Your task to perform on an android device: Open network settings Image 0: 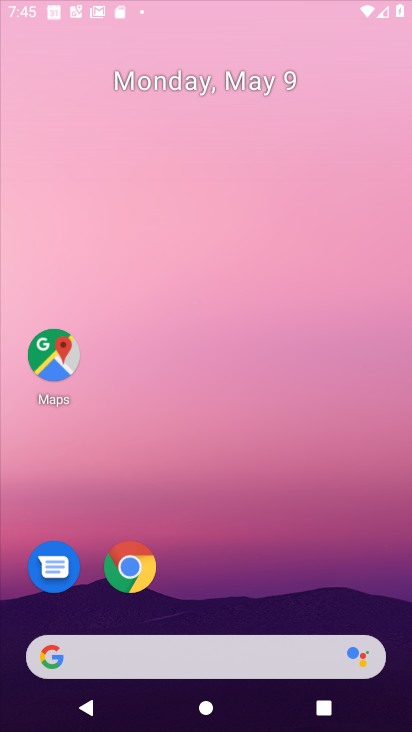
Step 0: click (313, 360)
Your task to perform on an android device: Open network settings Image 1: 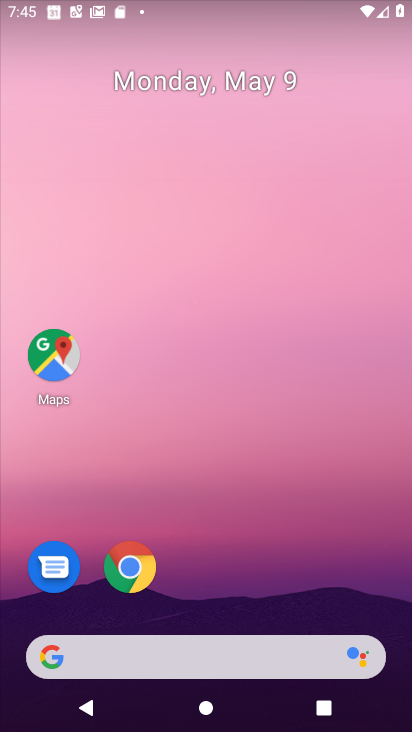
Step 1: drag from (222, 559) to (365, 128)
Your task to perform on an android device: Open network settings Image 2: 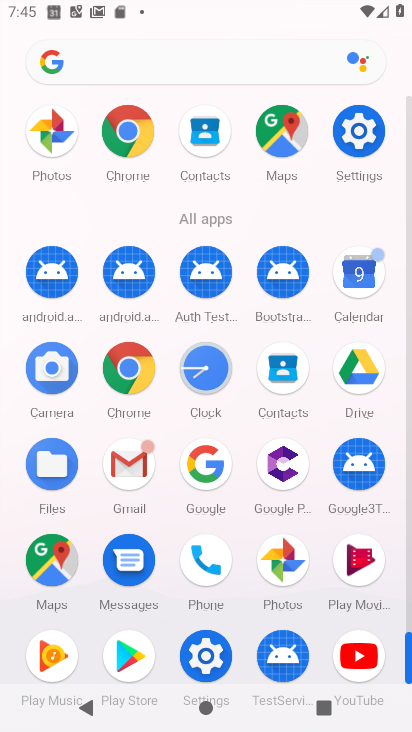
Step 2: click (207, 662)
Your task to perform on an android device: Open network settings Image 3: 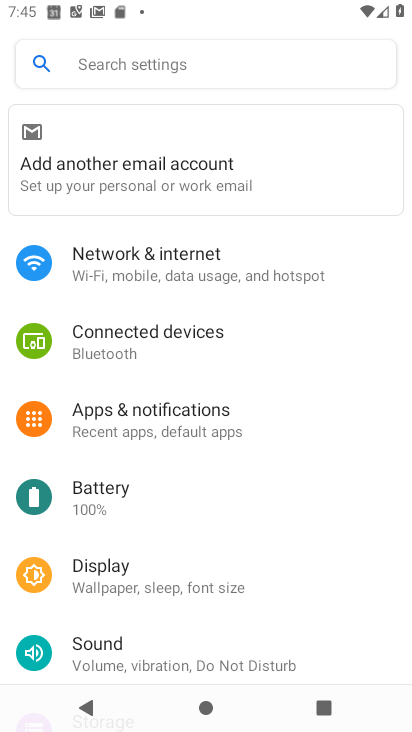
Step 3: click (174, 262)
Your task to perform on an android device: Open network settings Image 4: 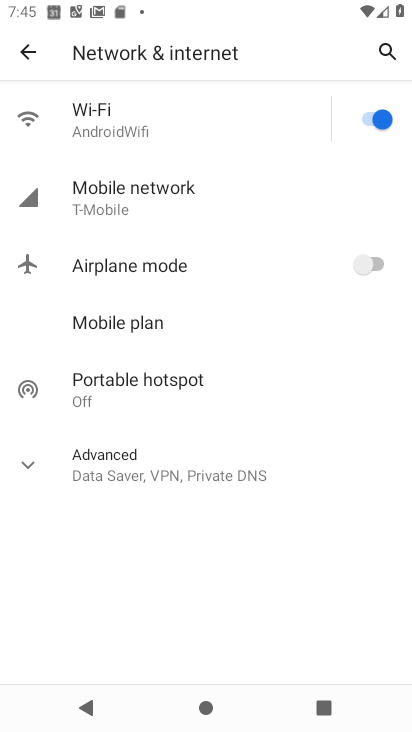
Step 4: click (175, 191)
Your task to perform on an android device: Open network settings Image 5: 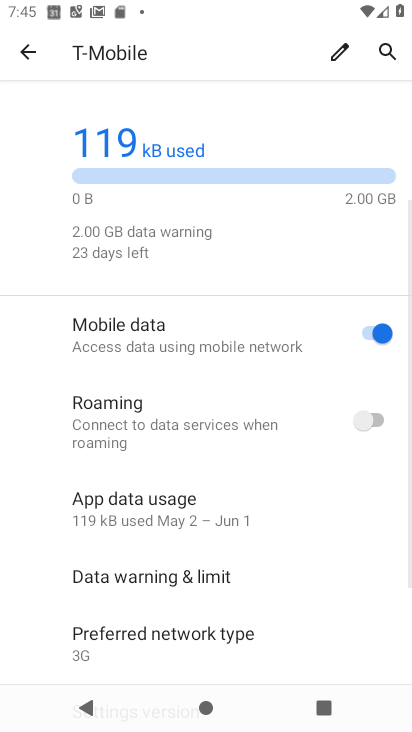
Step 5: click (153, 194)
Your task to perform on an android device: Open network settings Image 6: 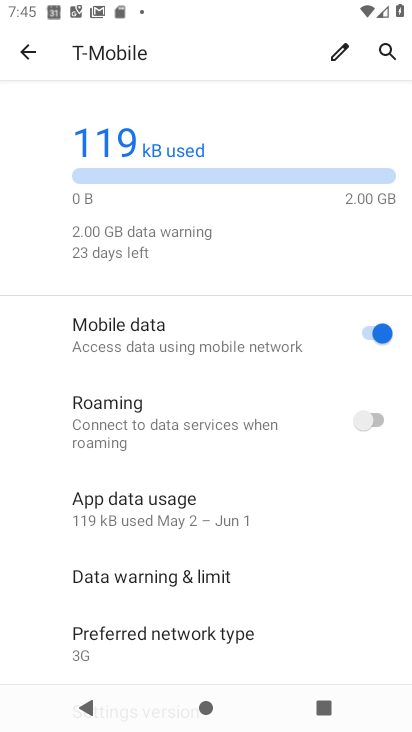
Step 6: click (153, 194)
Your task to perform on an android device: Open network settings Image 7: 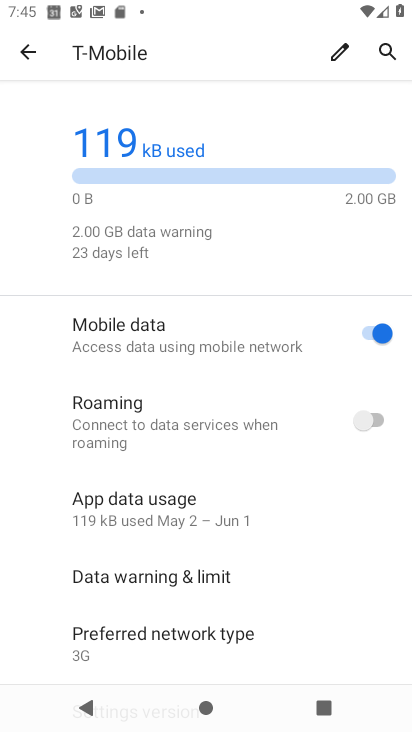
Step 7: task complete